Your task to perform on an android device: What's the news in Peru? Image 0: 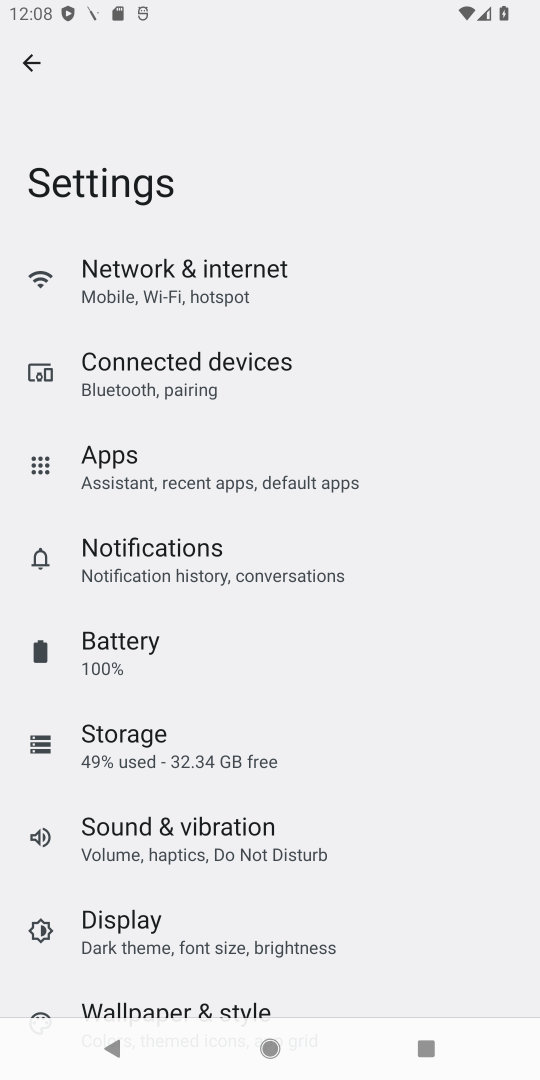
Step 0: press home button
Your task to perform on an android device: What's the news in Peru? Image 1: 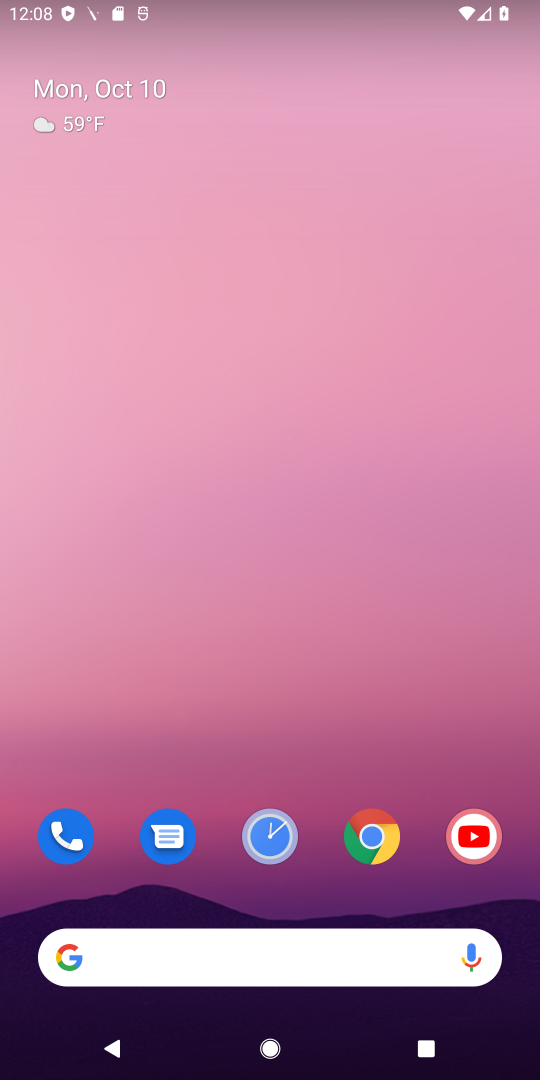
Step 1: click (365, 846)
Your task to perform on an android device: What's the news in Peru? Image 2: 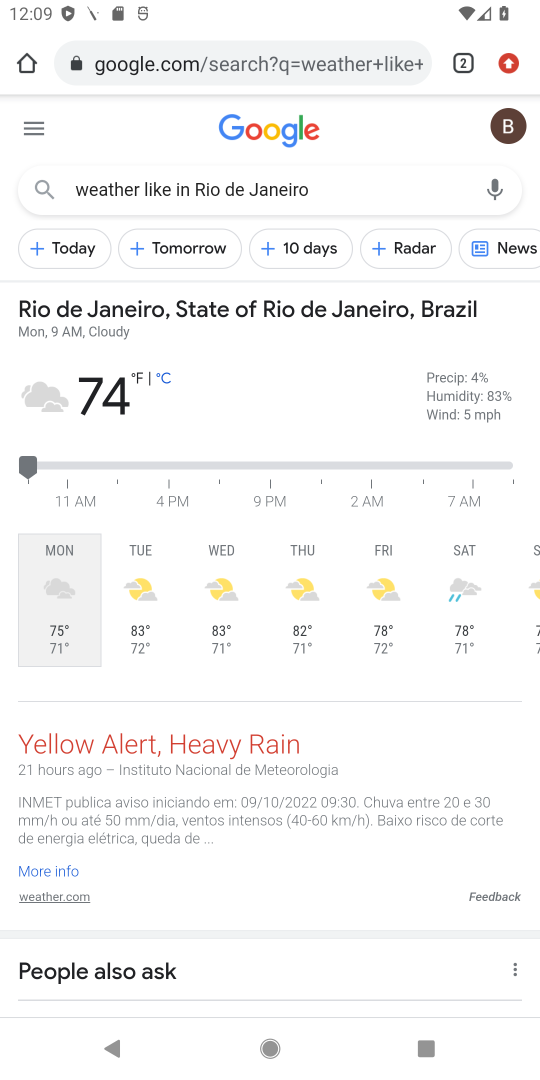
Step 2: click (287, 73)
Your task to perform on an android device: What's the news in Peru? Image 3: 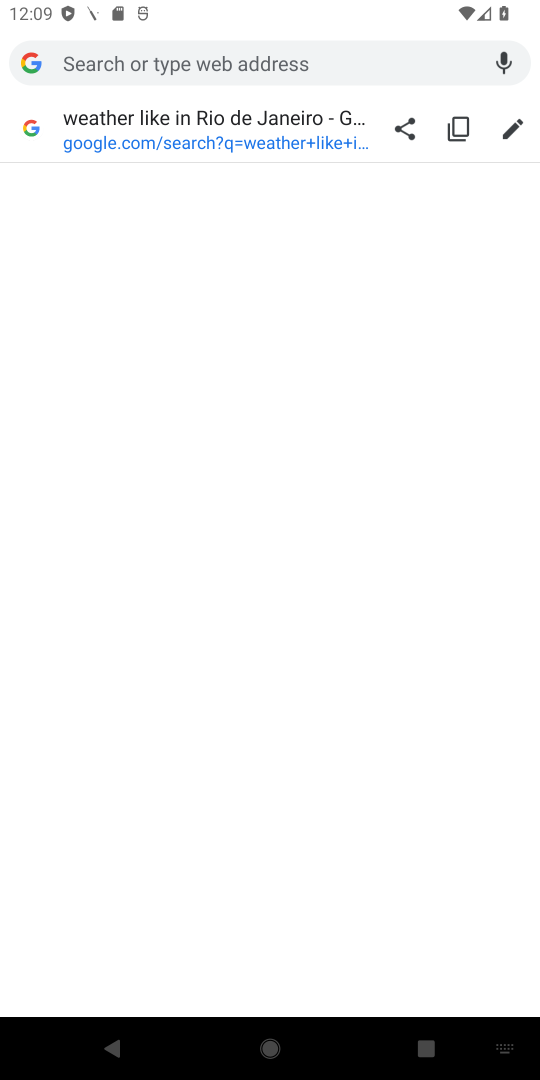
Step 3: type "peru"
Your task to perform on an android device: What's the news in Peru? Image 4: 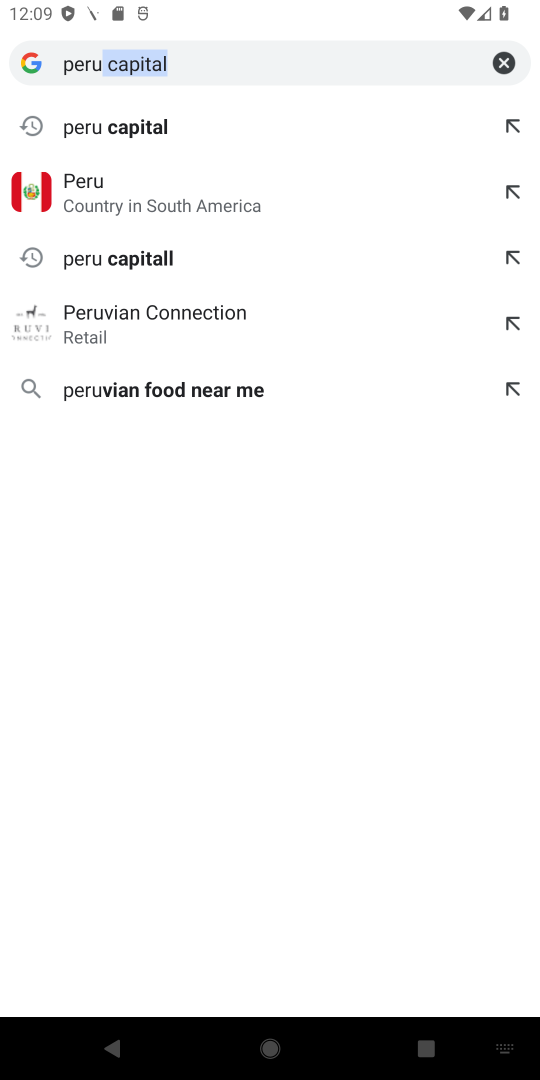
Step 4: click (316, 197)
Your task to perform on an android device: What's the news in Peru? Image 5: 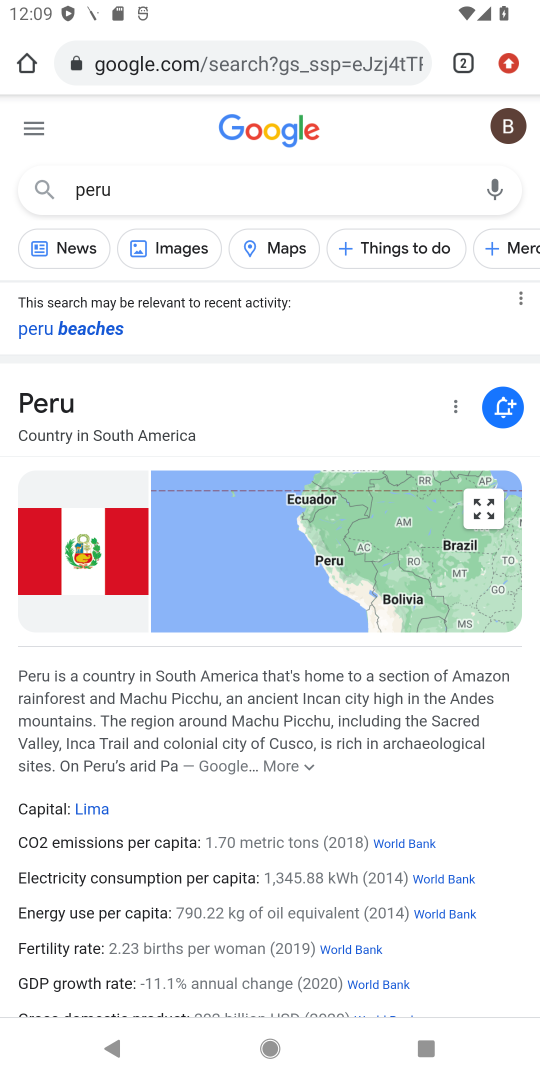
Step 5: click (77, 257)
Your task to perform on an android device: What's the news in Peru? Image 6: 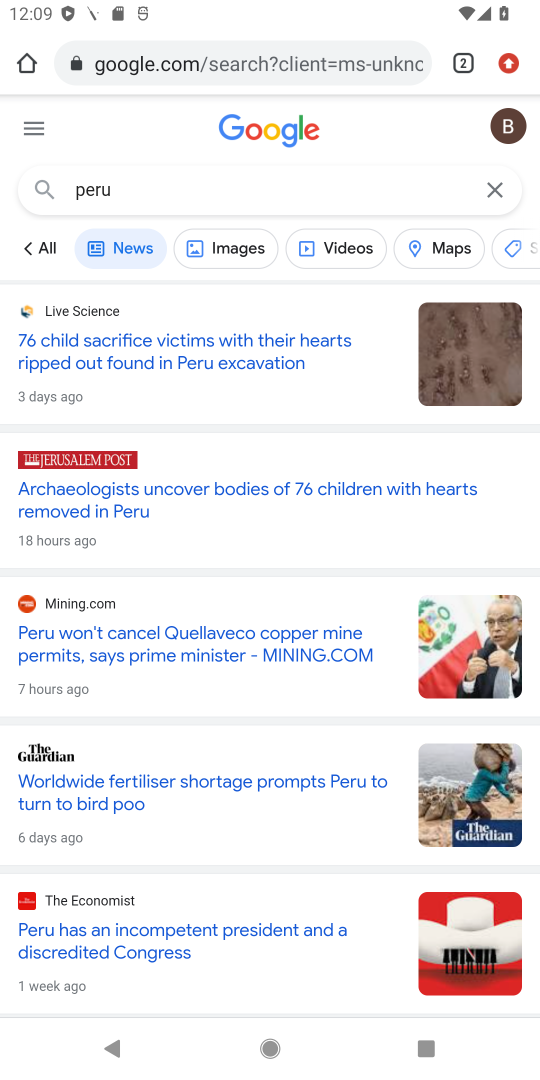
Step 6: task complete